Your task to perform on an android device: delete location history Image 0: 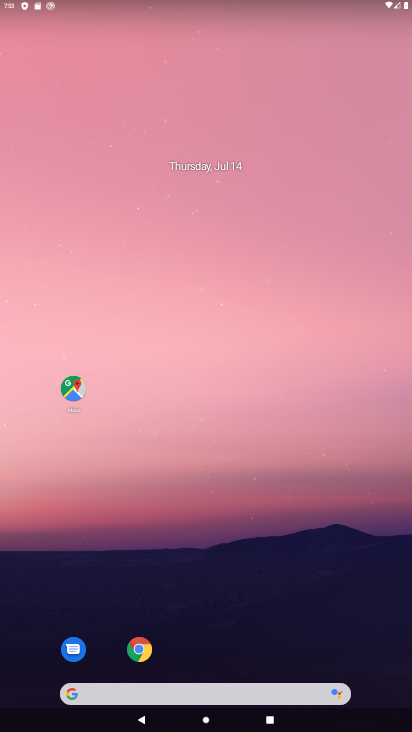
Step 0: drag from (180, 673) to (243, 174)
Your task to perform on an android device: delete location history Image 1: 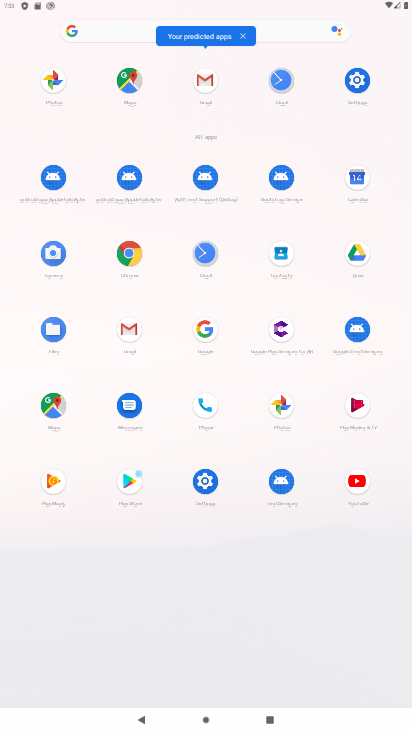
Step 1: click (214, 479)
Your task to perform on an android device: delete location history Image 2: 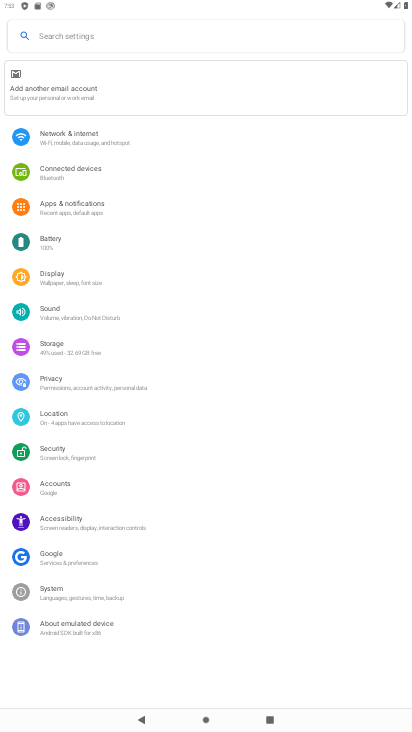
Step 2: click (73, 419)
Your task to perform on an android device: delete location history Image 3: 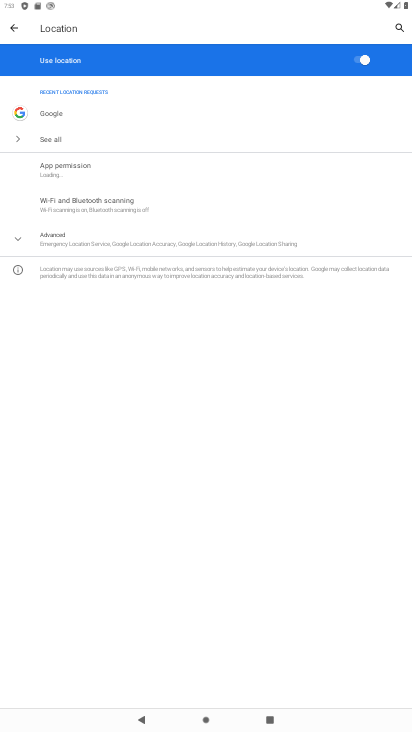
Step 3: click (85, 250)
Your task to perform on an android device: delete location history Image 4: 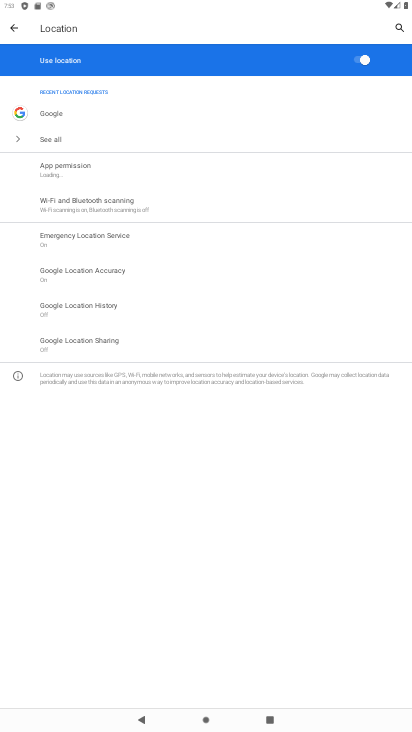
Step 4: click (114, 302)
Your task to perform on an android device: delete location history Image 5: 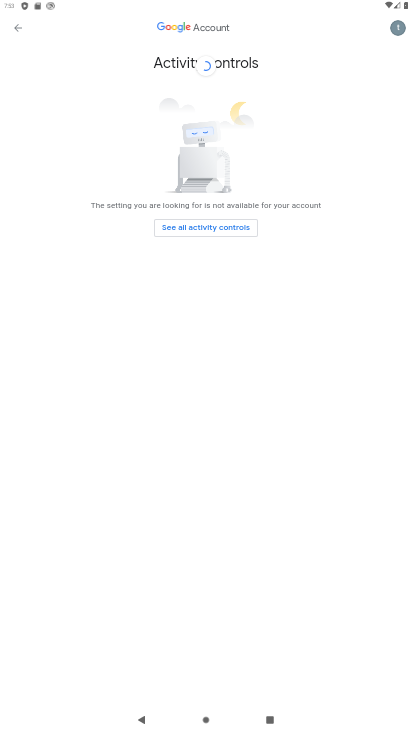
Step 5: click (238, 232)
Your task to perform on an android device: delete location history Image 6: 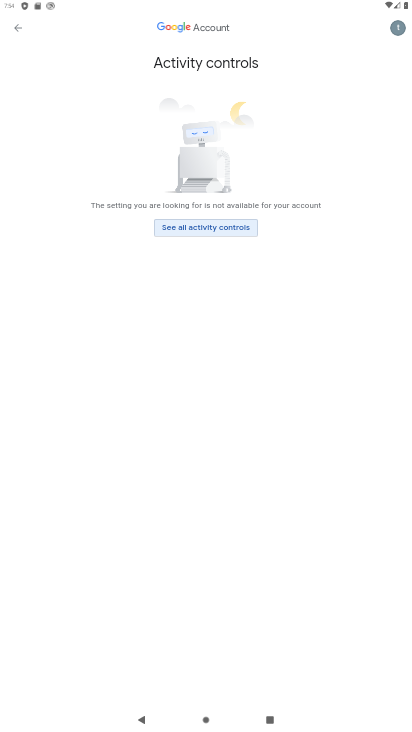
Step 6: click (203, 225)
Your task to perform on an android device: delete location history Image 7: 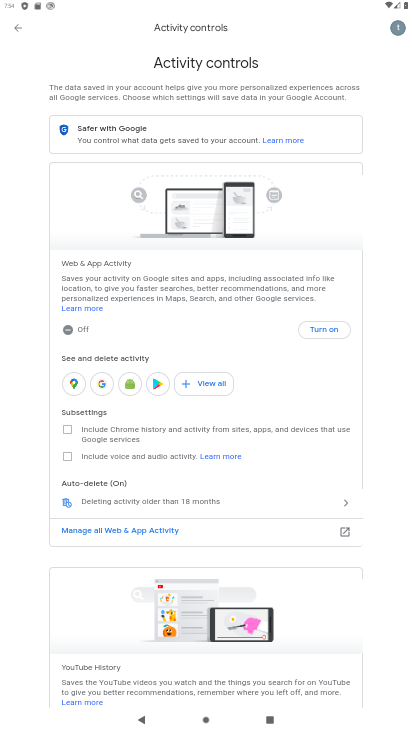
Step 7: click (141, 493)
Your task to perform on an android device: delete location history Image 8: 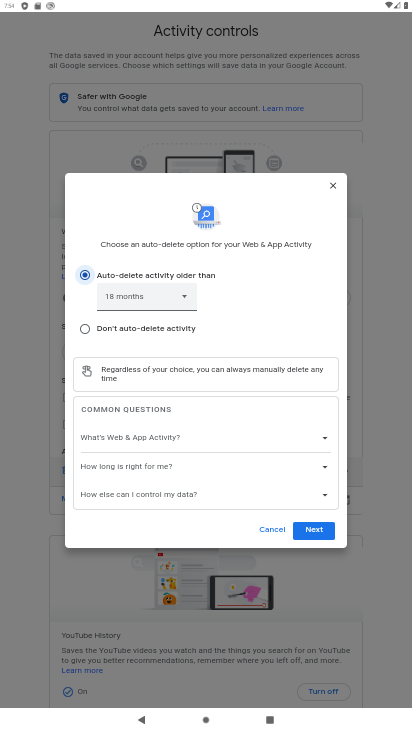
Step 8: click (322, 531)
Your task to perform on an android device: delete location history Image 9: 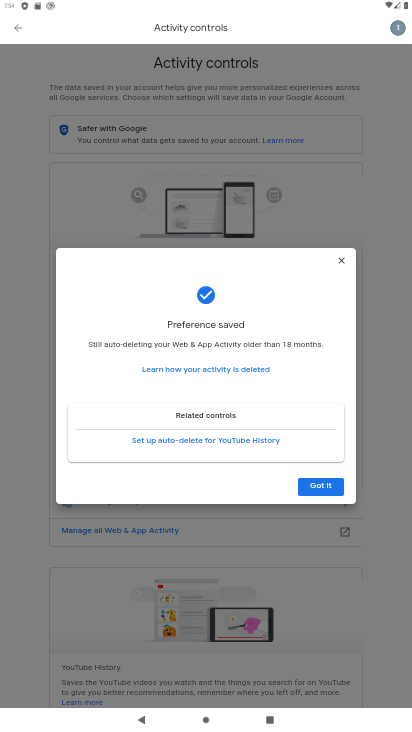
Step 9: click (316, 489)
Your task to perform on an android device: delete location history Image 10: 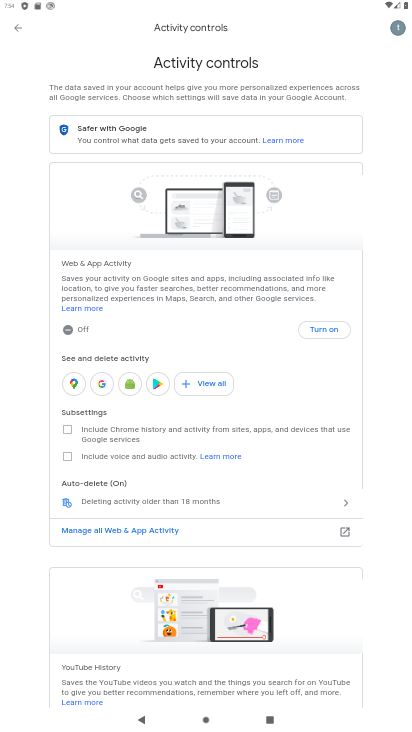
Step 10: task complete